Your task to perform on an android device: Find coffee shops on Maps Image 0: 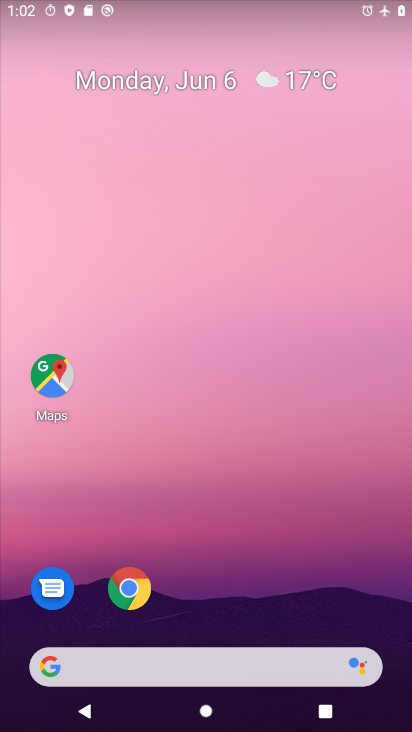
Step 0: click (46, 371)
Your task to perform on an android device: Find coffee shops on Maps Image 1: 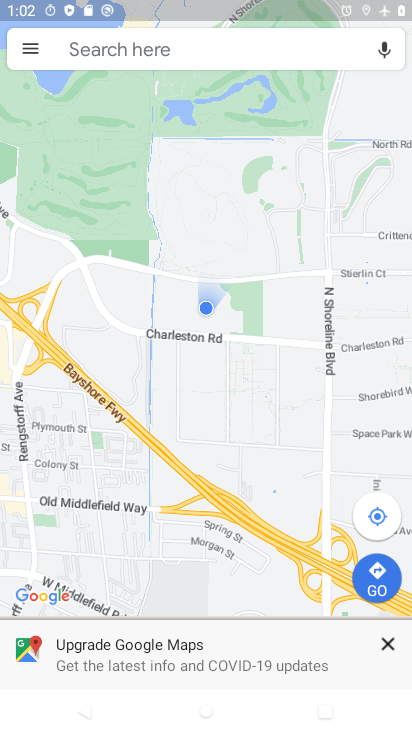
Step 1: click (127, 40)
Your task to perform on an android device: Find coffee shops on Maps Image 2: 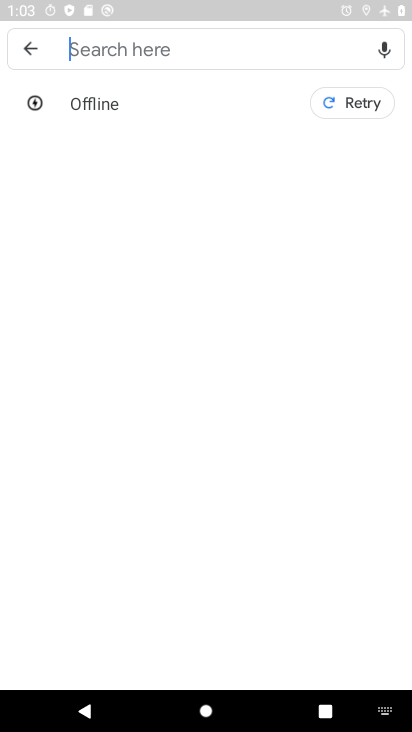
Step 2: type "coffee shops"
Your task to perform on an android device: Find coffee shops on Maps Image 3: 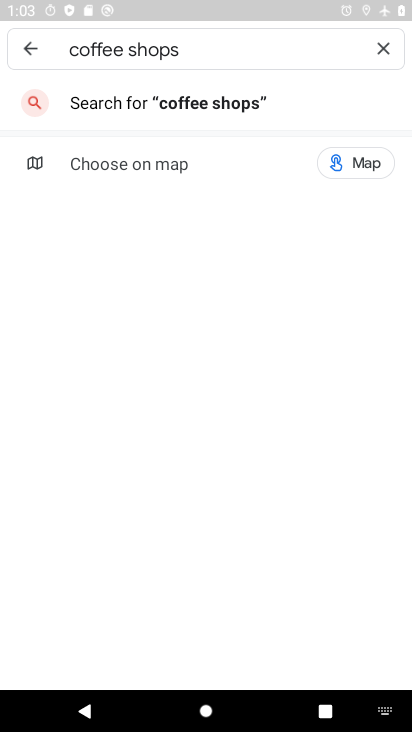
Step 3: press enter
Your task to perform on an android device: Find coffee shops on Maps Image 4: 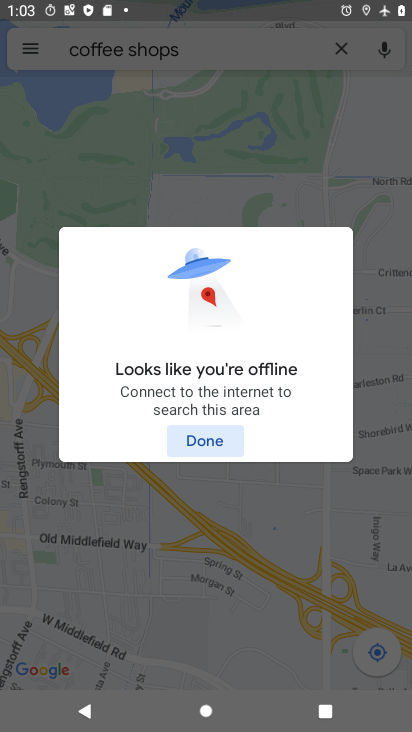
Step 4: task complete